Your task to perform on an android device: check battery use Image 0: 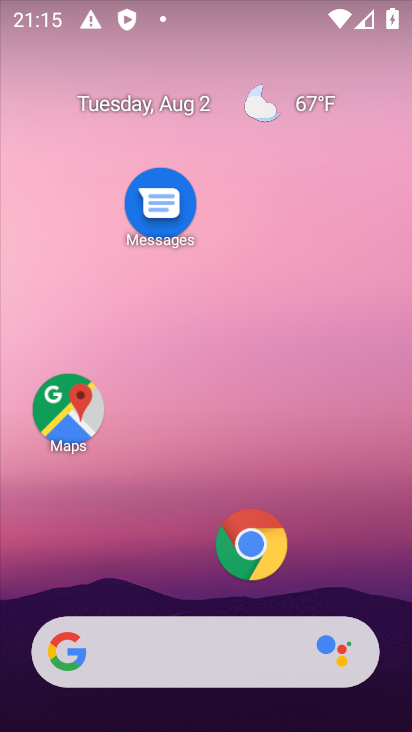
Step 0: drag from (198, 575) to (191, 144)
Your task to perform on an android device: check battery use Image 1: 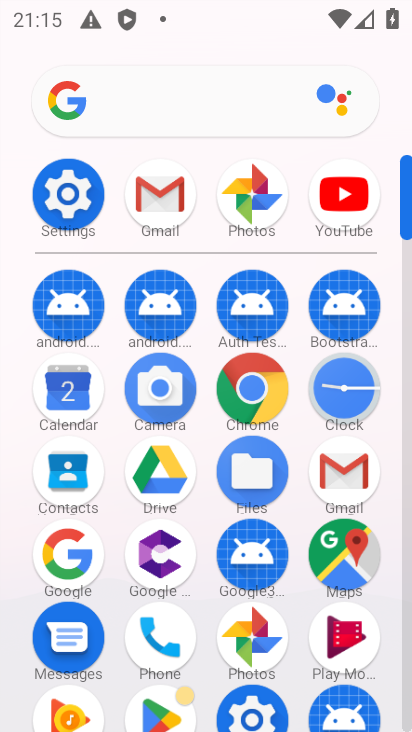
Step 1: click (69, 233)
Your task to perform on an android device: check battery use Image 2: 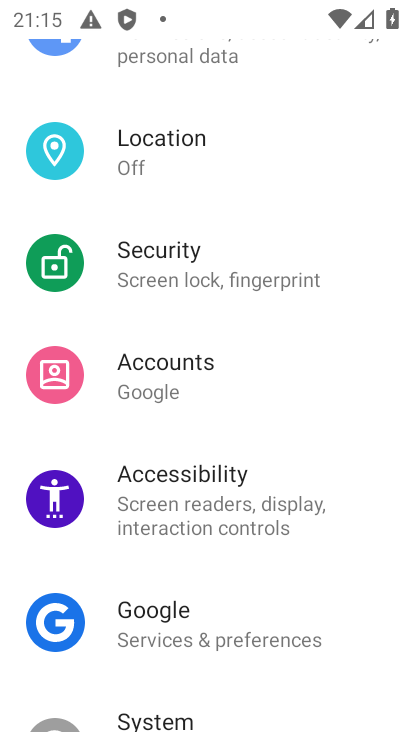
Step 2: drag from (226, 176) to (257, 679)
Your task to perform on an android device: check battery use Image 3: 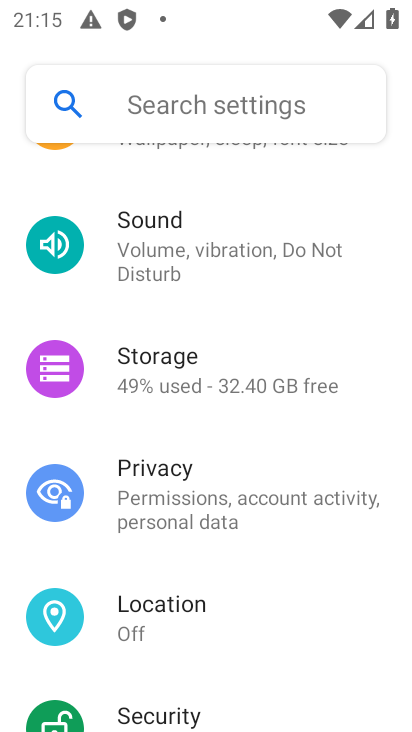
Step 3: drag from (203, 246) to (228, 612)
Your task to perform on an android device: check battery use Image 4: 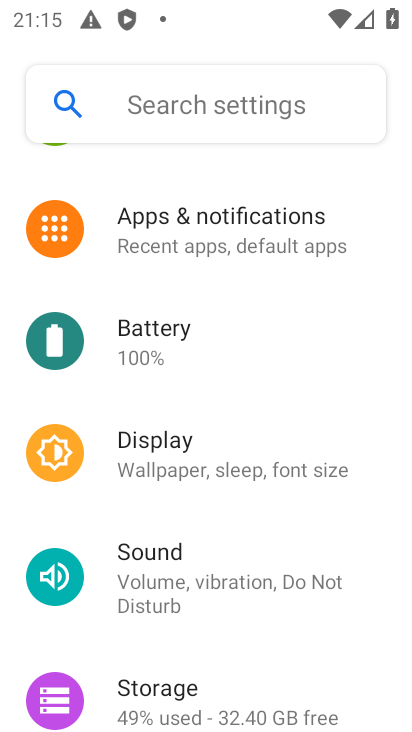
Step 4: click (203, 326)
Your task to perform on an android device: check battery use Image 5: 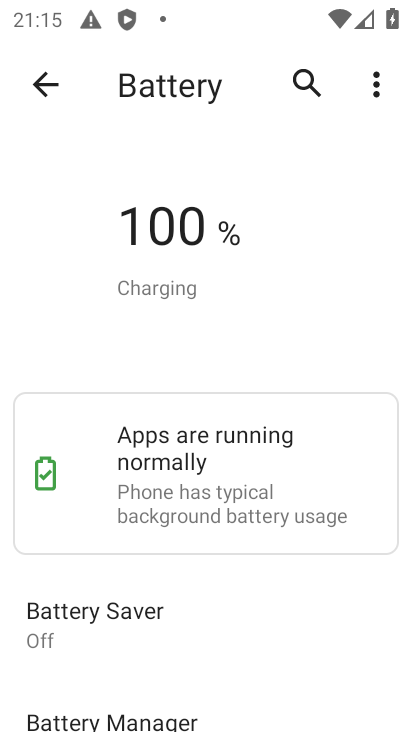
Step 5: click (372, 91)
Your task to perform on an android device: check battery use Image 6: 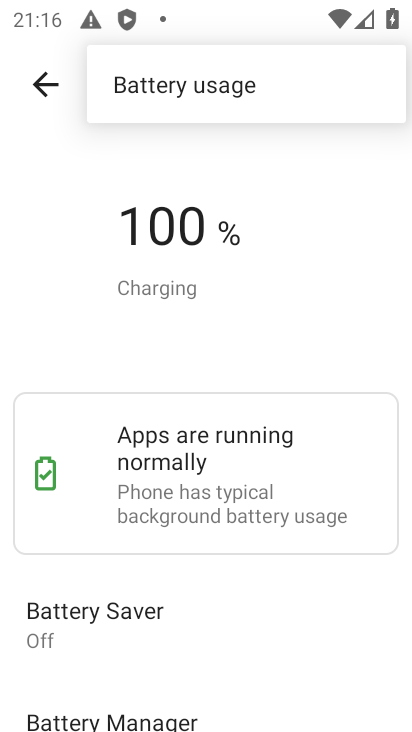
Step 6: click (138, 96)
Your task to perform on an android device: check battery use Image 7: 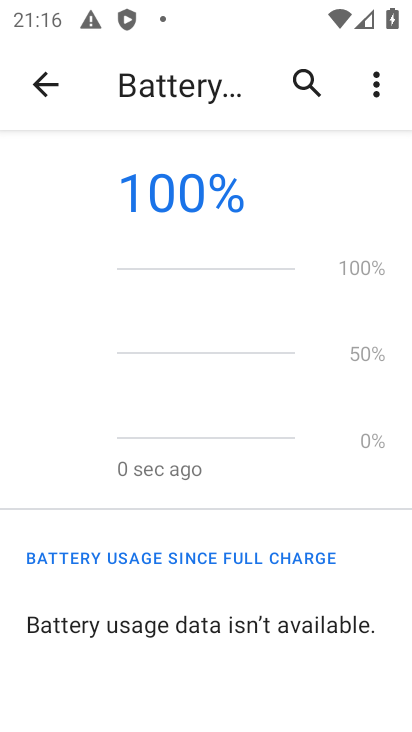
Step 7: task complete